Your task to perform on an android device: Go to settings Image 0: 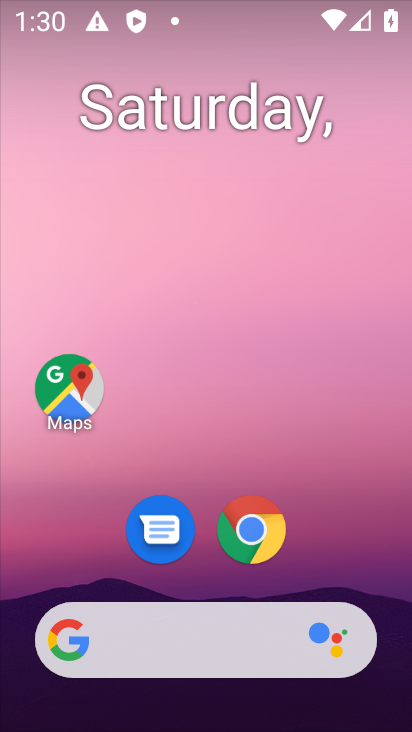
Step 0: drag from (341, 575) to (297, 61)
Your task to perform on an android device: Go to settings Image 1: 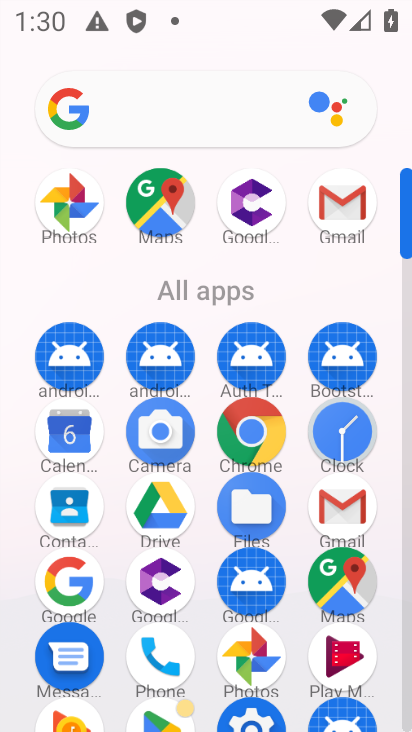
Step 1: click (270, 715)
Your task to perform on an android device: Go to settings Image 2: 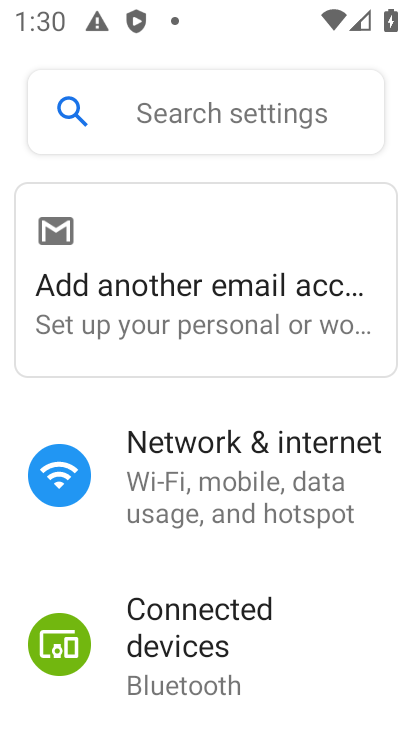
Step 2: task complete